Your task to perform on an android device: Open the phone app and click the voicemail tab. Image 0: 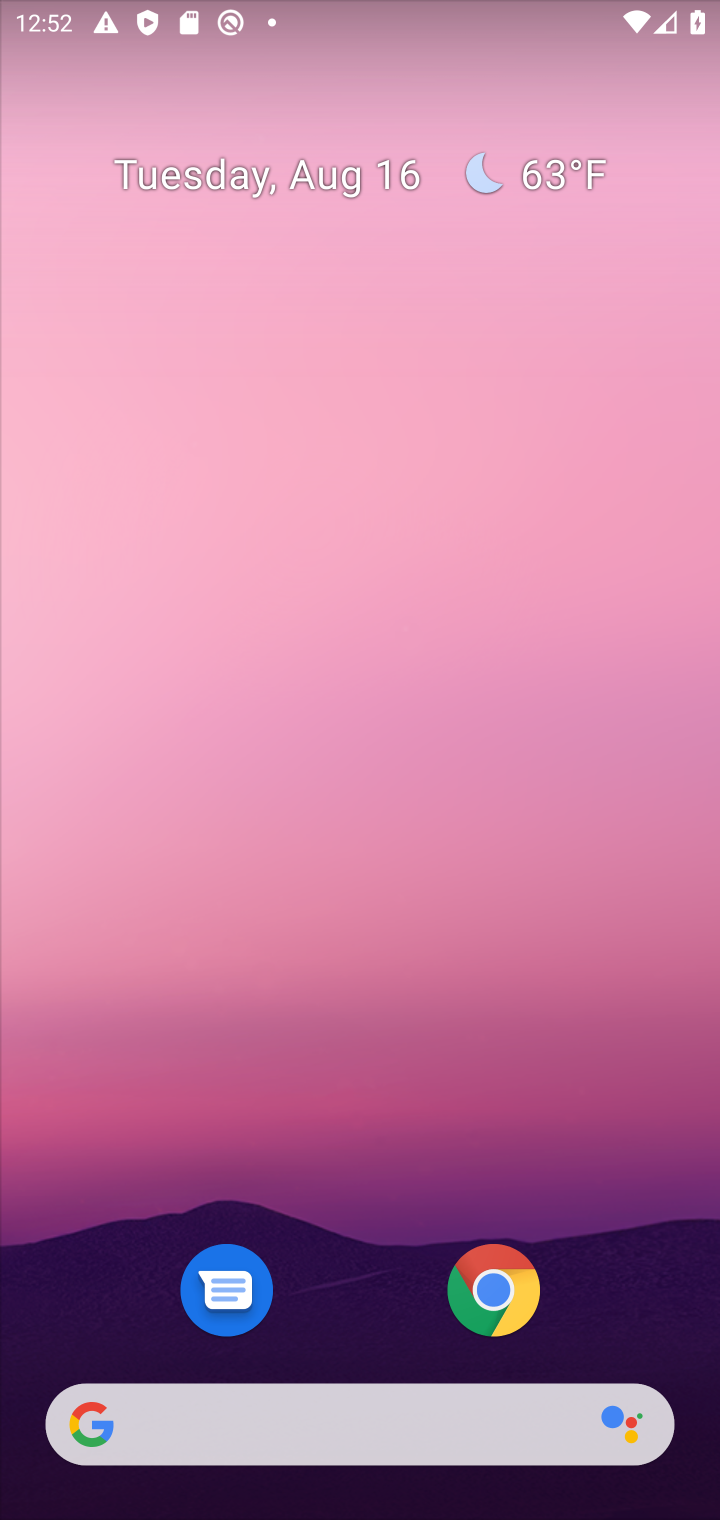
Step 0: drag from (188, 532) to (380, 161)
Your task to perform on an android device: Open the phone app and click the voicemail tab. Image 1: 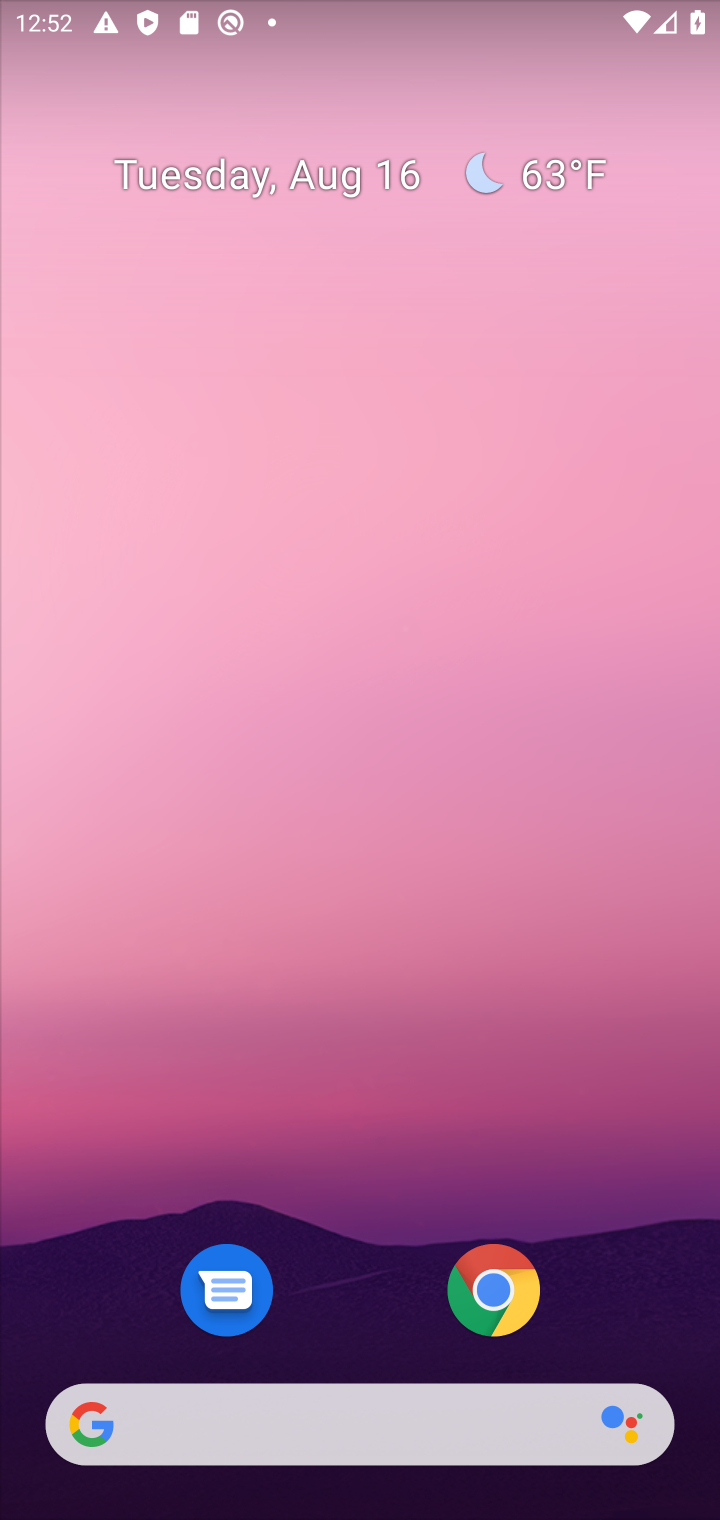
Step 1: drag from (172, 1132) to (512, 89)
Your task to perform on an android device: Open the phone app and click the voicemail tab. Image 2: 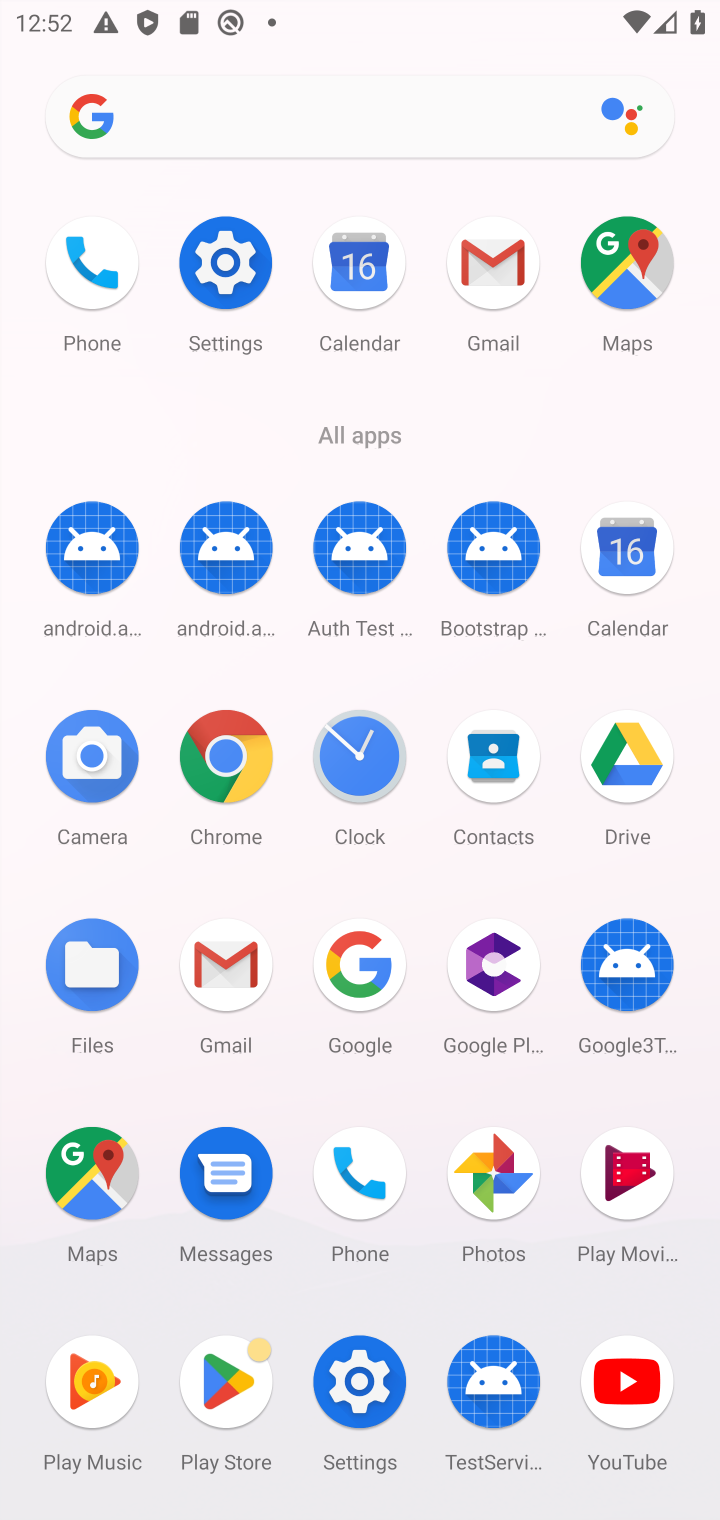
Step 2: click (381, 1167)
Your task to perform on an android device: Open the phone app and click the voicemail tab. Image 3: 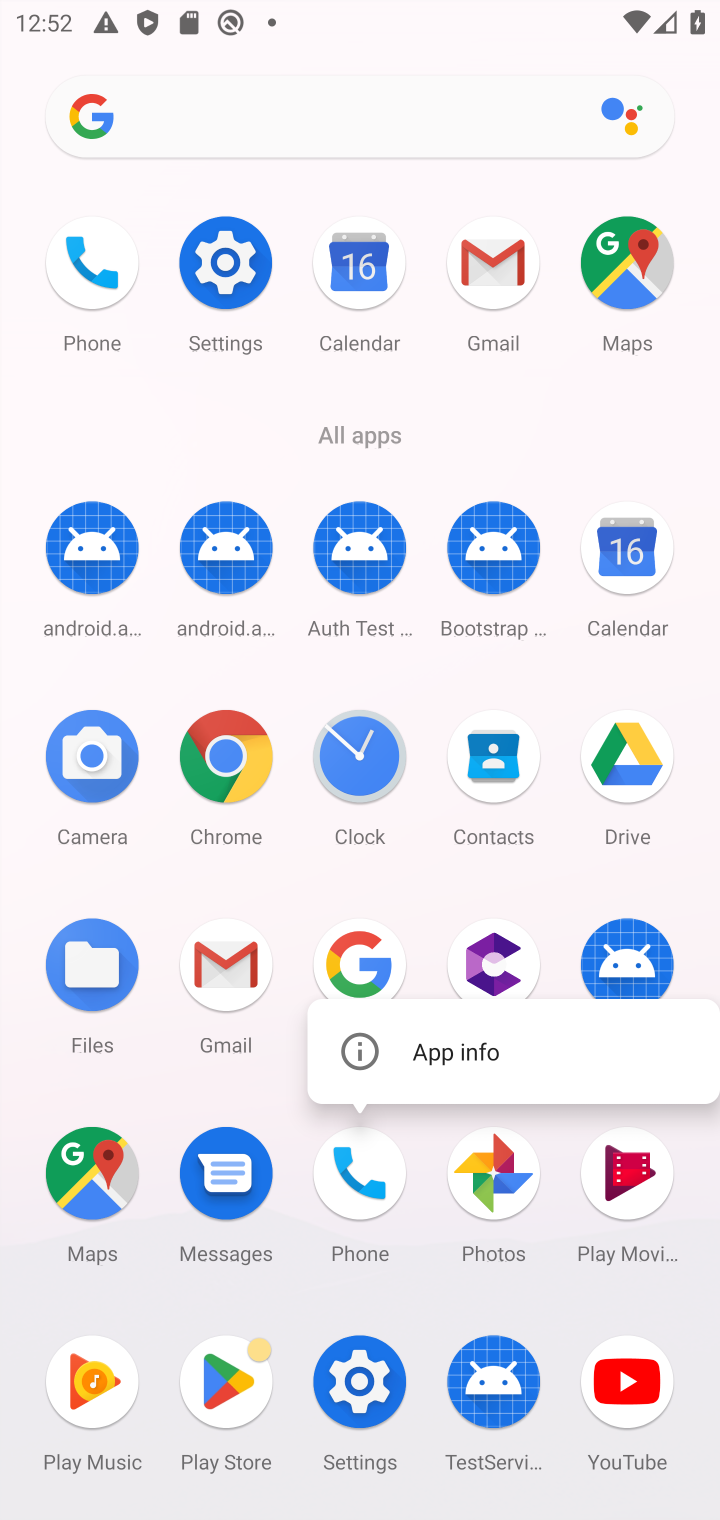
Step 3: click (360, 1159)
Your task to perform on an android device: Open the phone app and click the voicemail tab. Image 4: 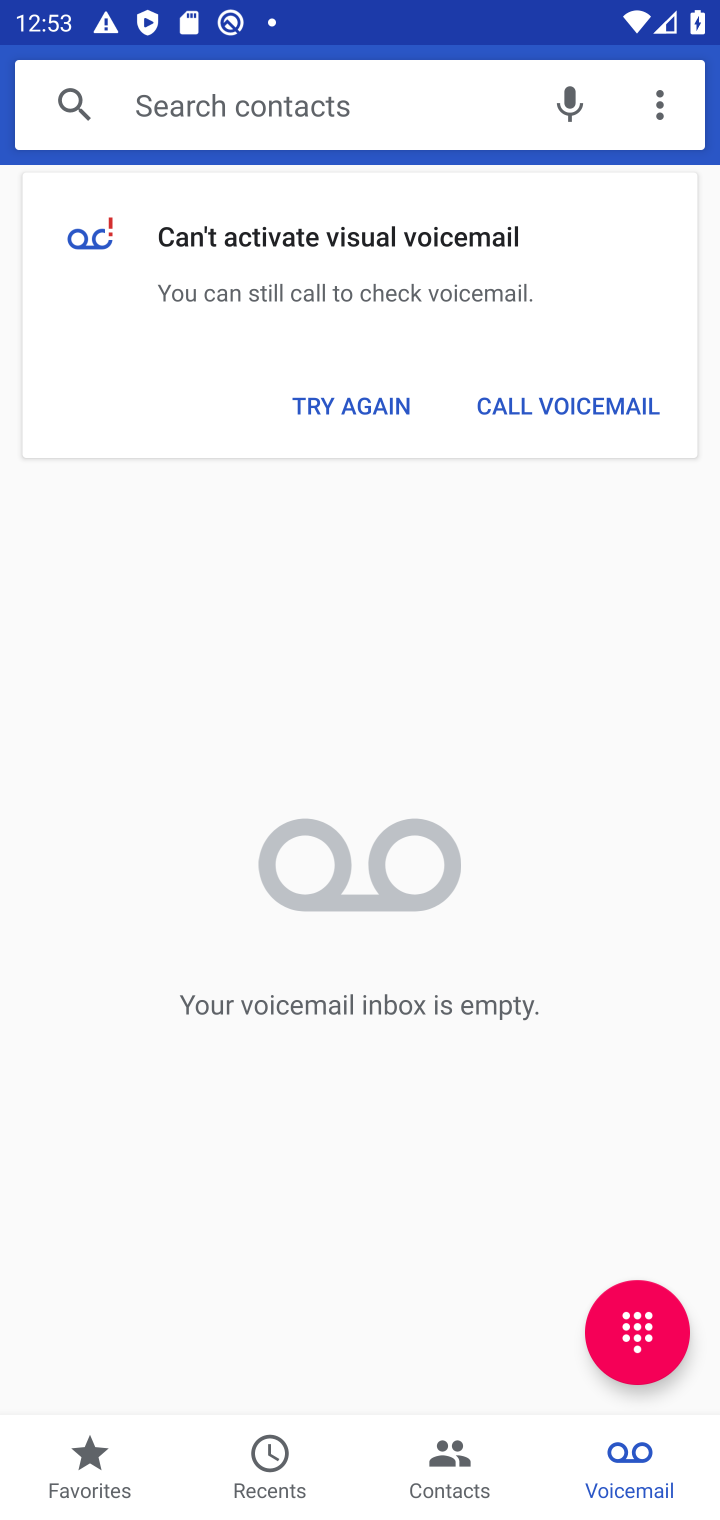
Step 4: click (643, 1468)
Your task to perform on an android device: Open the phone app and click the voicemail tab. Image 5: 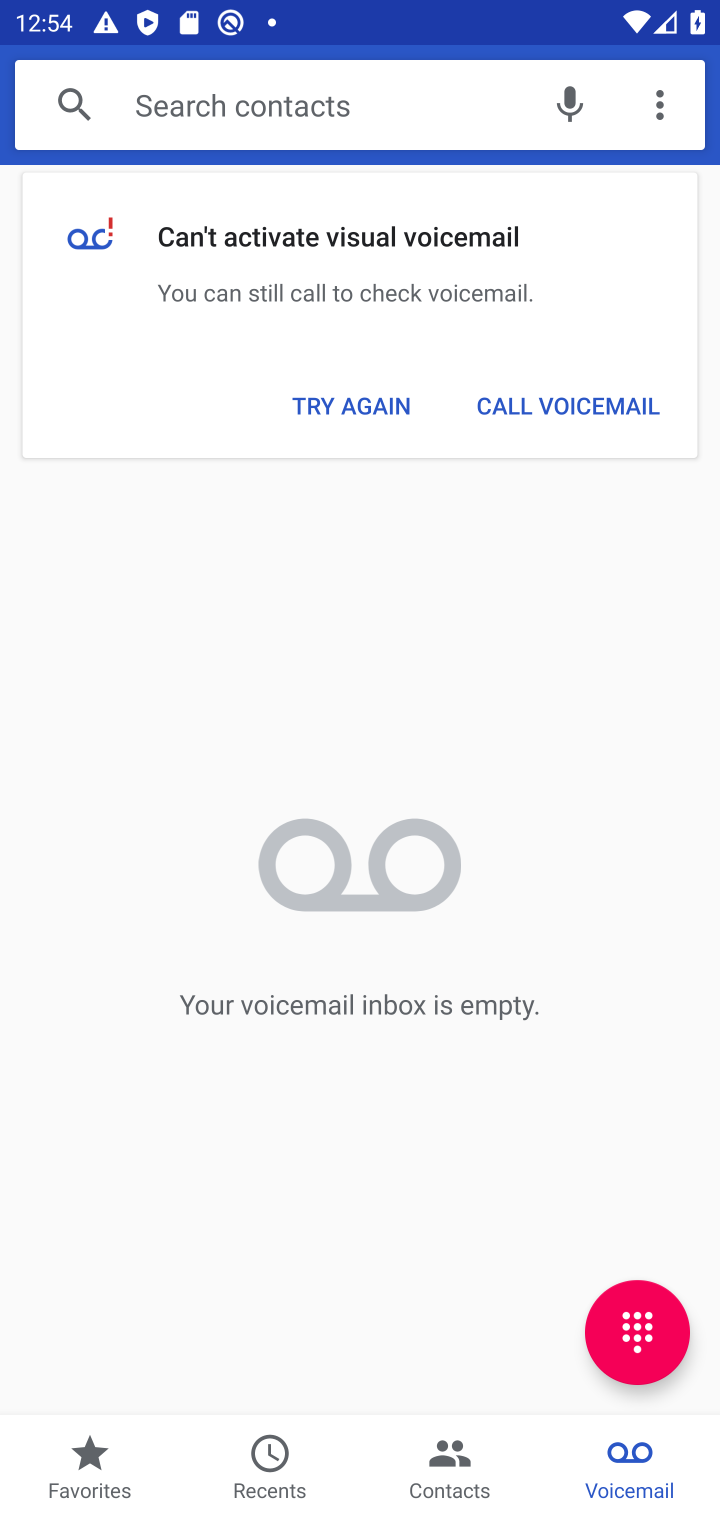
Step 5: task complete